Your task to perform on an android device: Go to Google Image 0: 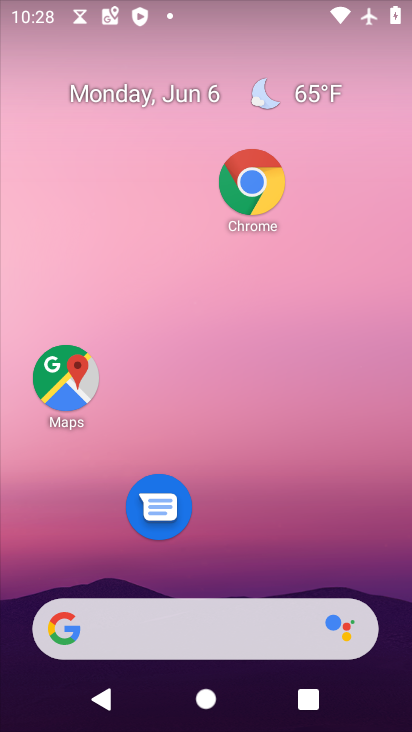
Step 0: drag from (245, 554) to (290, 193)
Your task to perform on an android device: Go to Google Image 1: 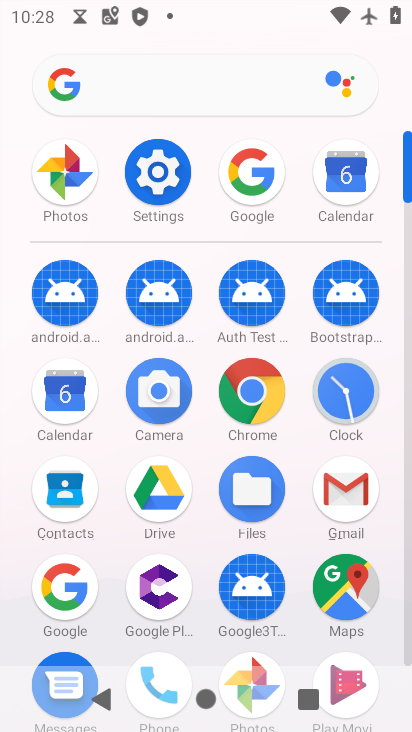
Step 1: click (65, 580)
Your task to perform on an android device: Go to Google Image 2: 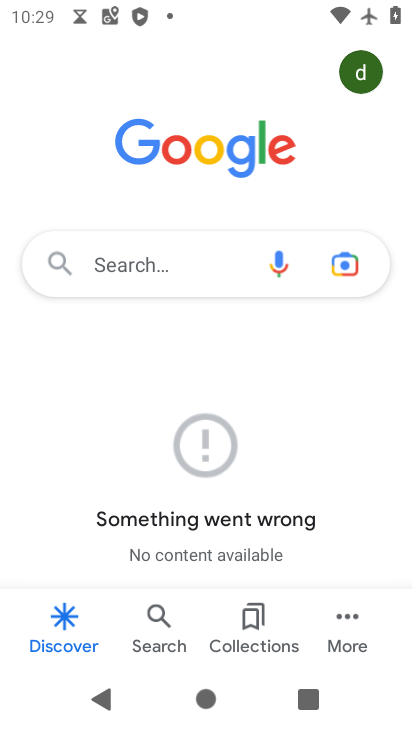
Step 2: task complete